Your task to perform on an android device: Open location settings Image 0: 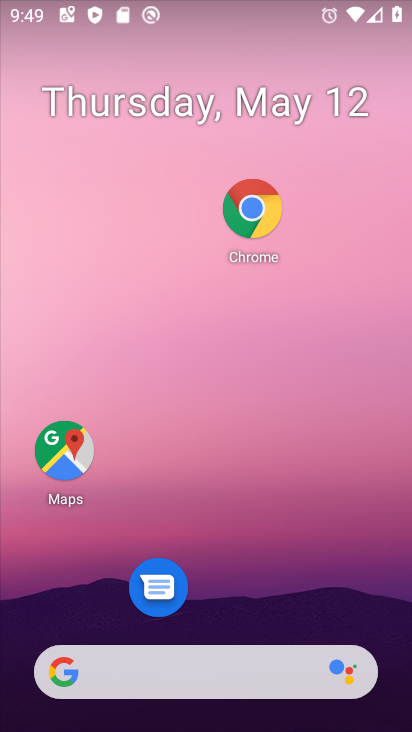
Step 0: drag from (301, 612) to (301, 257)
Your task to perform on an android device: Open location settings Image 1: 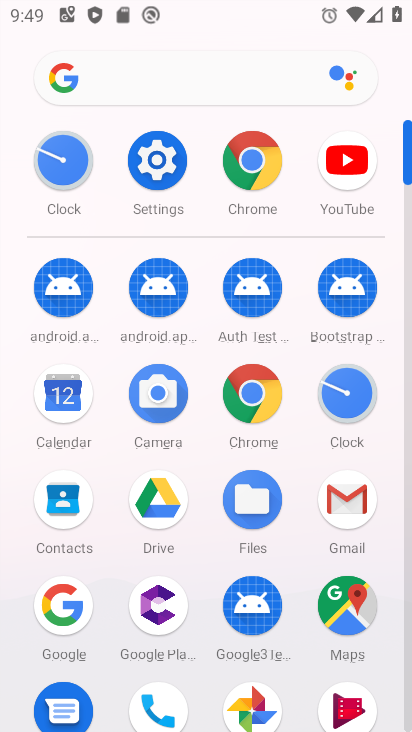
Step 1: click (146, 166)
Your task to perform on an android device: Open location settings Image 2: 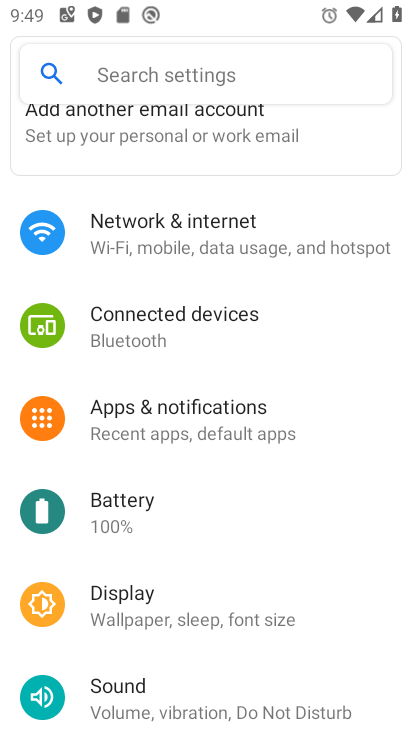
Step 2: drag from (213, 648) to (227, 241)
Your task to perform on an android device: Open location settings Image 3: 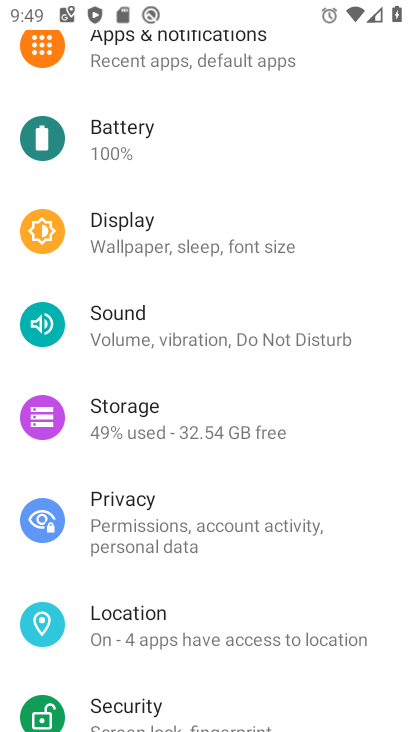
Step 3: click (153, 633)
Your task to perform on an android device: Open location settings Image 4: 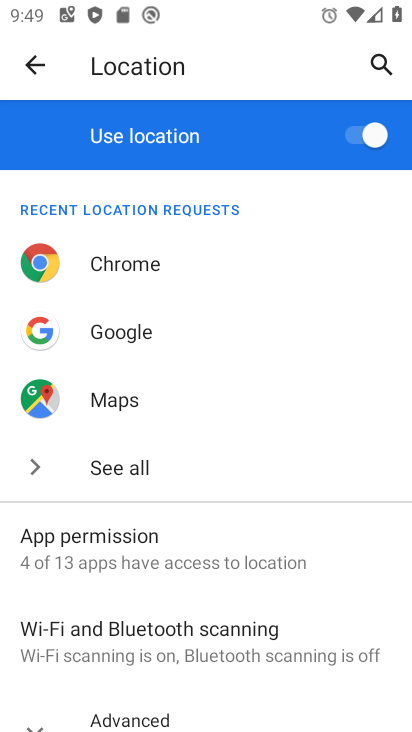
Step 4: task complete